Your task to perform on an android device: Go to Android settings Image 0: 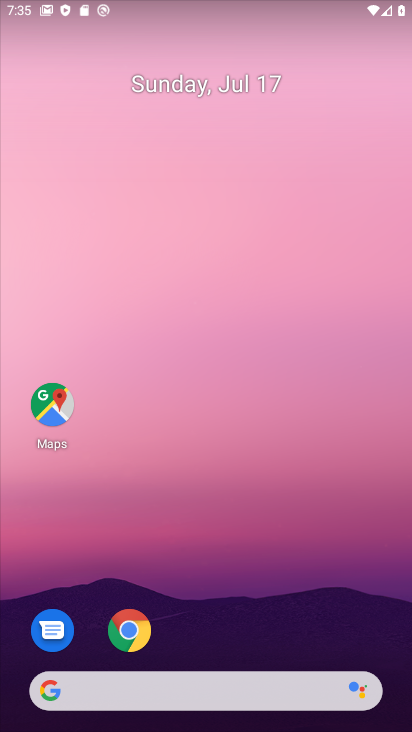
Step 0: drag from (229, 650) to (249, 287)
Your task to perform on an android device: Go to Android settings Image 1: 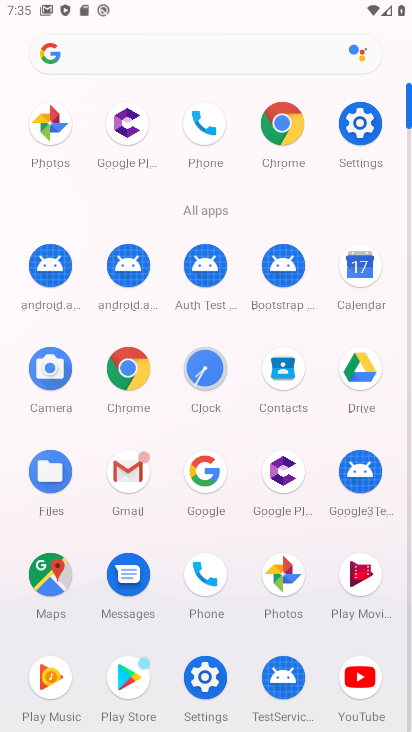
Step 1: click (359, 117)
Your task to perform on an android device: Go to Android settings Image 2: 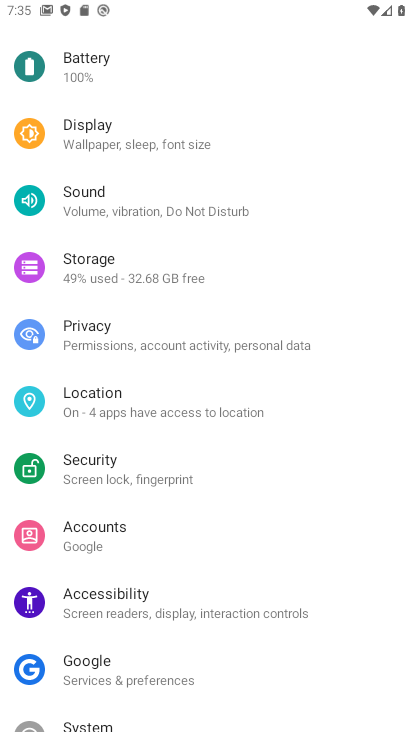
Step 2: task complete